Your task to perform on an android device: Go to privacy settings Image 0: 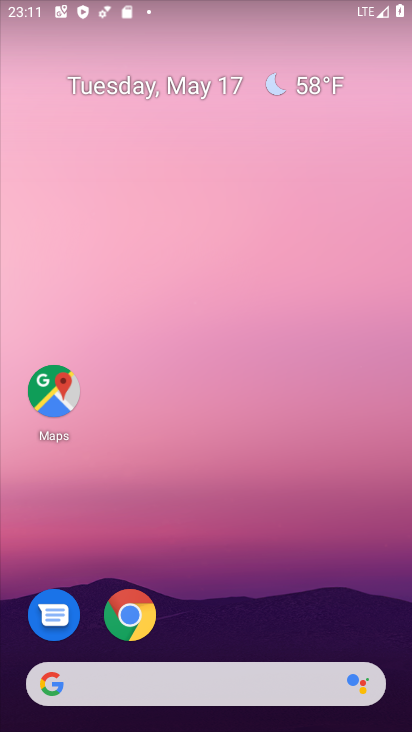
Step 0: drag from (209, 634) to (195, 172)
Your task to perform on an android device: Go to privacy settings Image 1: 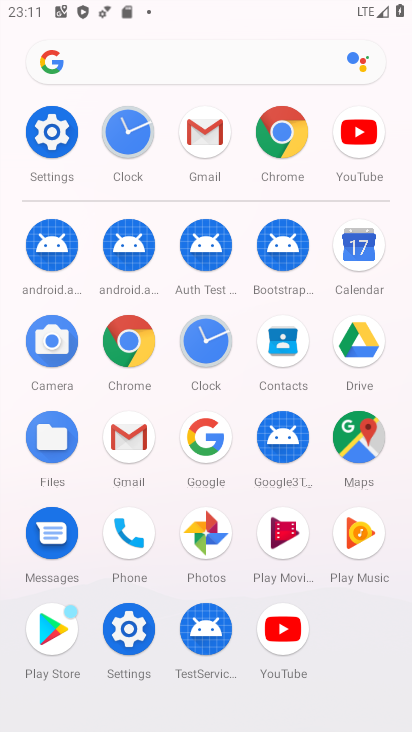
Step 1: click (57, 131)
Your task to perform on an android device: Go to privacy settings Image 2: 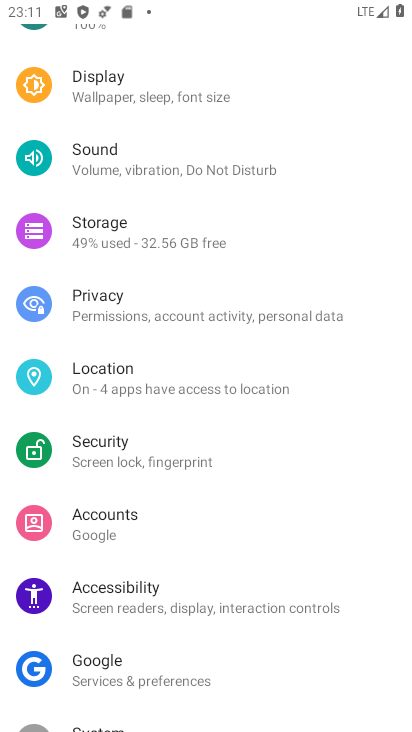
Step 2: click (149, 288)
Your task to perform on an android device: Go to privacy settings Image 3: 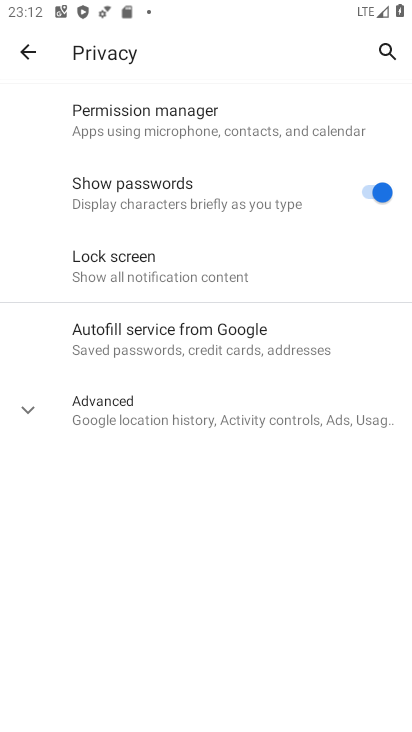
Step 3: task complete